Your task to perform on an android device: Open Google Chrome and open the bookmarks view Image 0: 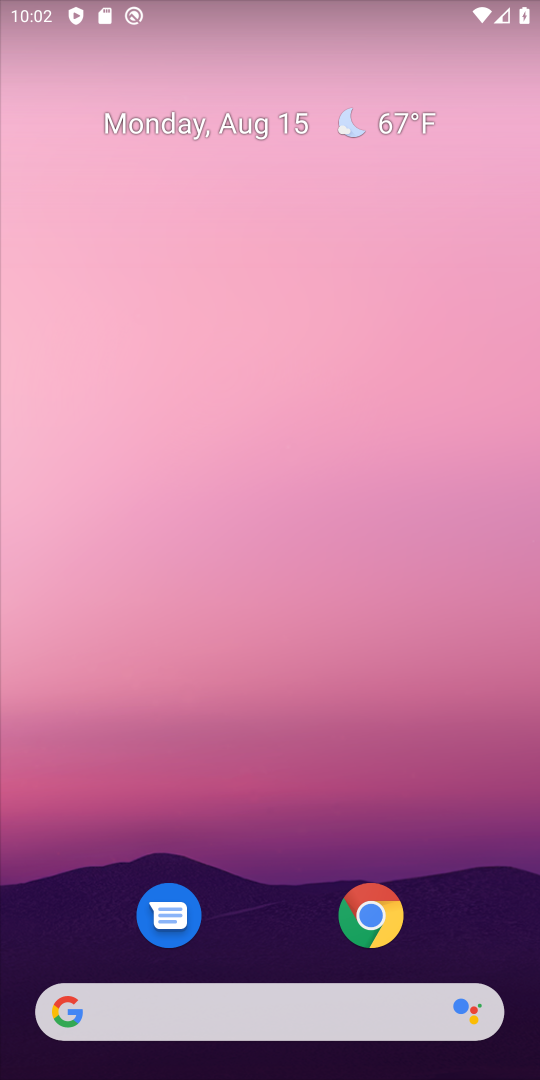
Step 0: click (381, 914)
Your task to perform on an android device: Open Google Chrome and open the bookmarks view Image 1: 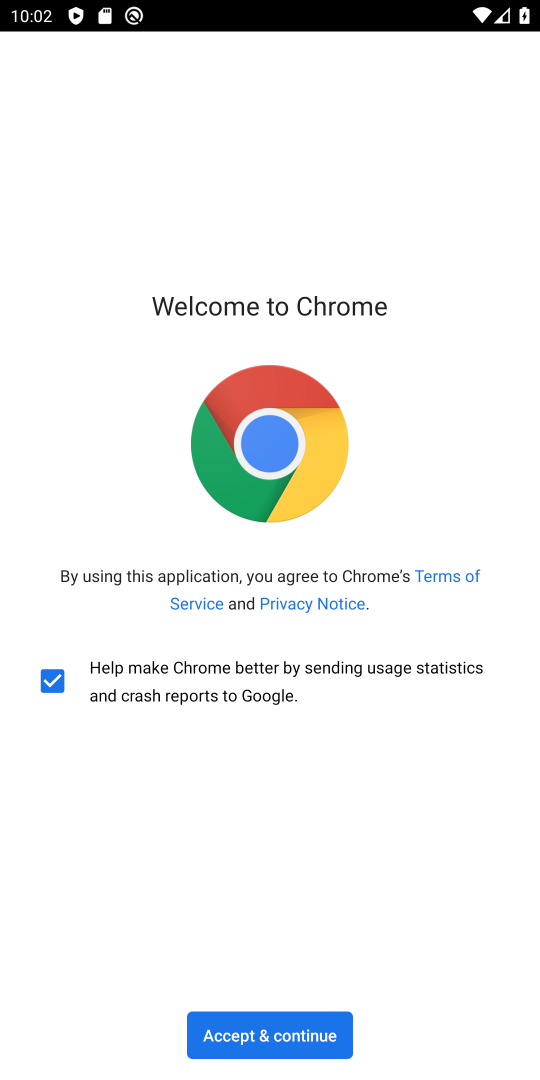
Step 1: click (213, 1032)
Your task to perform on an android device: Open Google Chrome and open the bookmarks view Image 2: 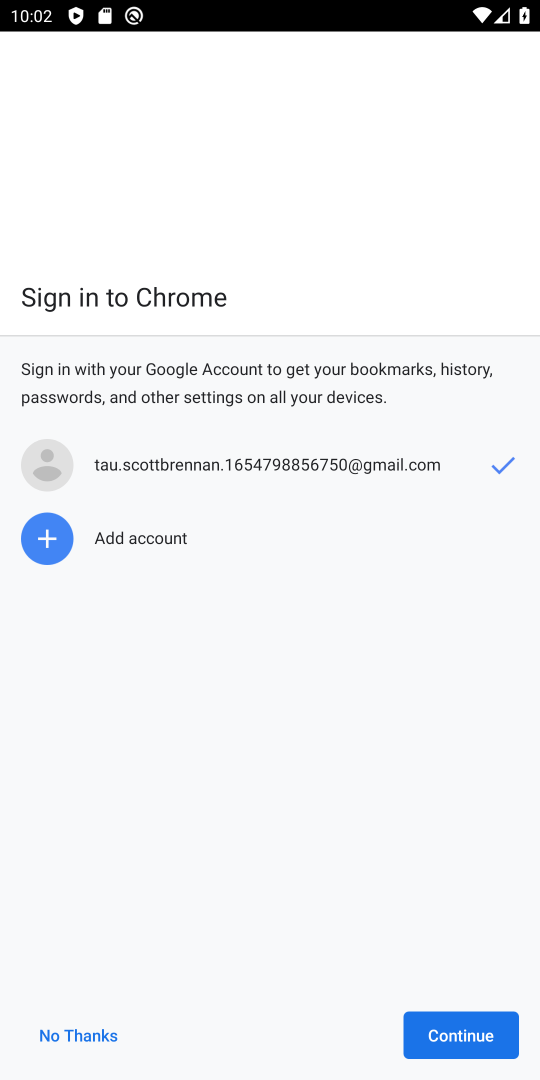
Step 2: click (498, 1017)
Your task to perform on an android device: Open Google Chrome and open the bookmarks view Image 3: 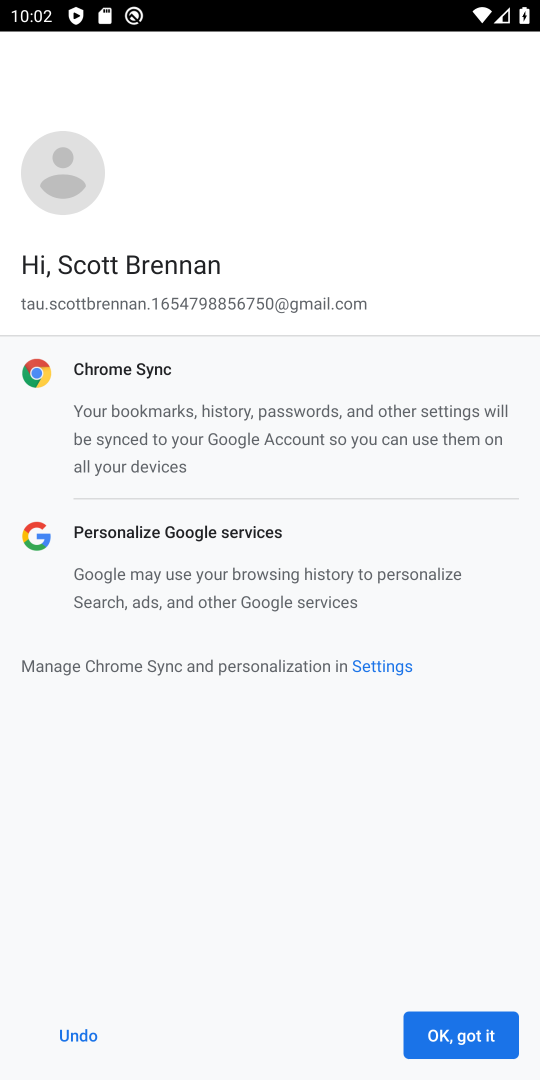
Step 3: click (467, 1033)
Your task to perform on an android device: Open Google Chrome and open the bookmarks view Image 4: 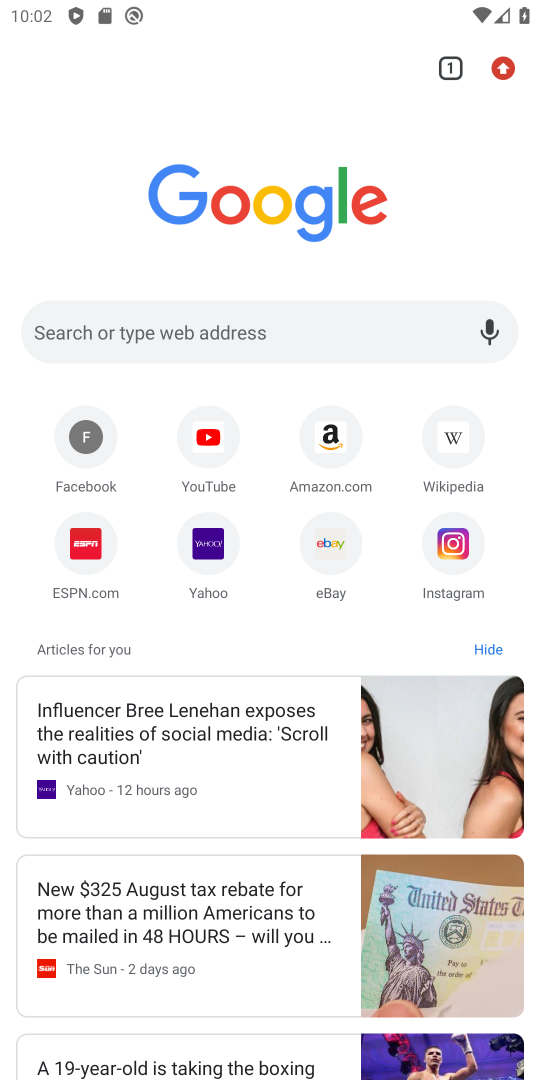
Step 4: click (498, 68)
Your task to perform on an android device: Open Google Chrome and open the bookmarks view Image 5: 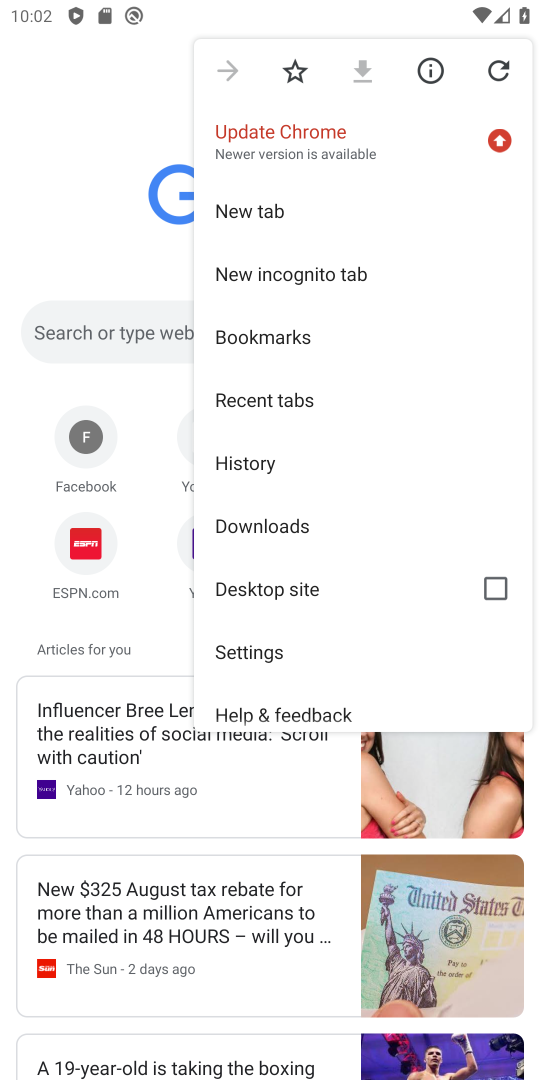
Step 5: click (289, 337)
Your task to perform on an android device: Open Google Chrome and open the bookmarks view Image 6: 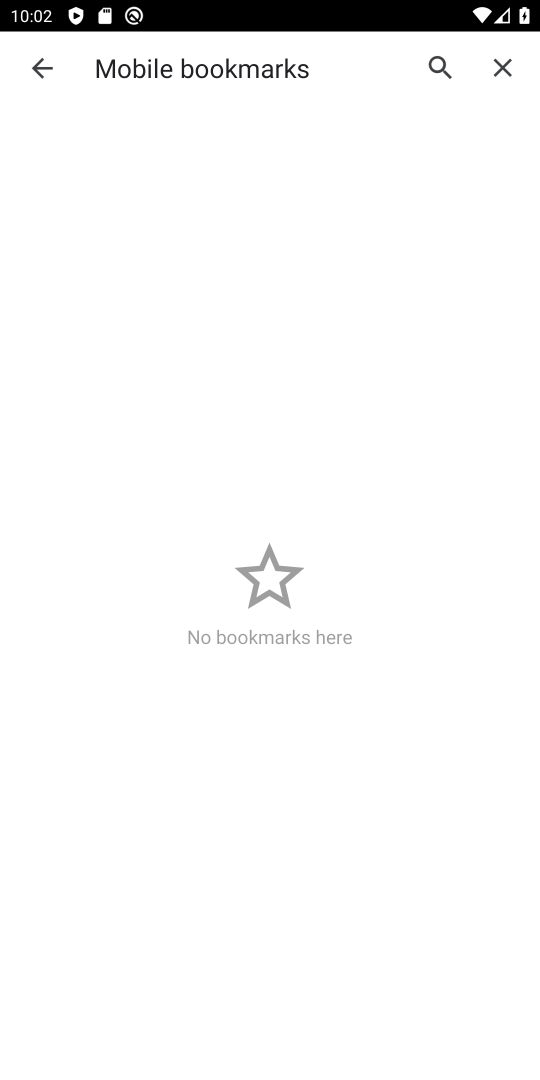
Step 6: task complete